Your task to perform on an android device: open device folders in google photos Image 0: 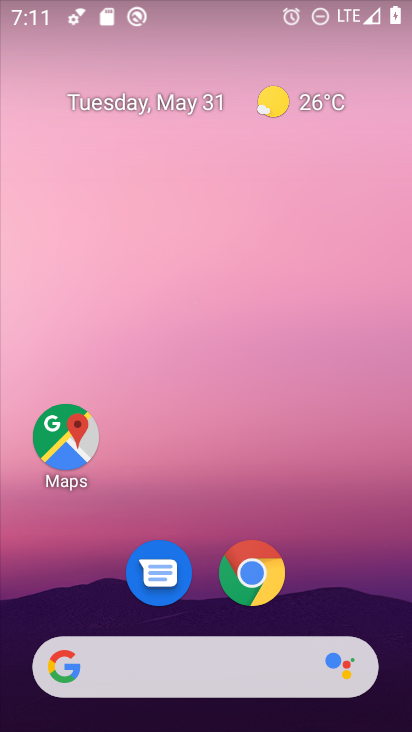
Step 0: drag from (276, 95) to (247, 29)
Your task to perform on an android device: open device folders in google photos Image 1: 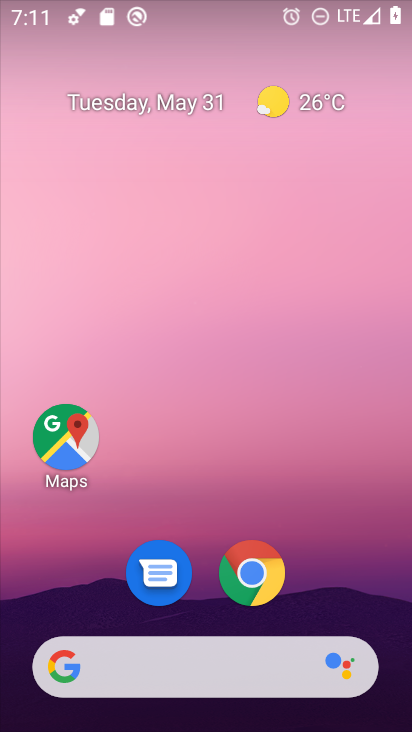
Step 1: drag from (401, 657) to (267, 3)
Your task to perform on an android device: open device folders in google photos Image 2: 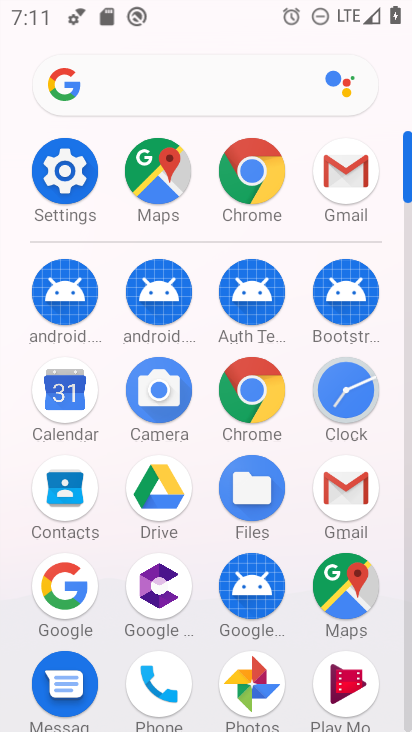
Step 2: click (255, 669)
Your task to perform on an android device: open device folders in google photos Image 3: 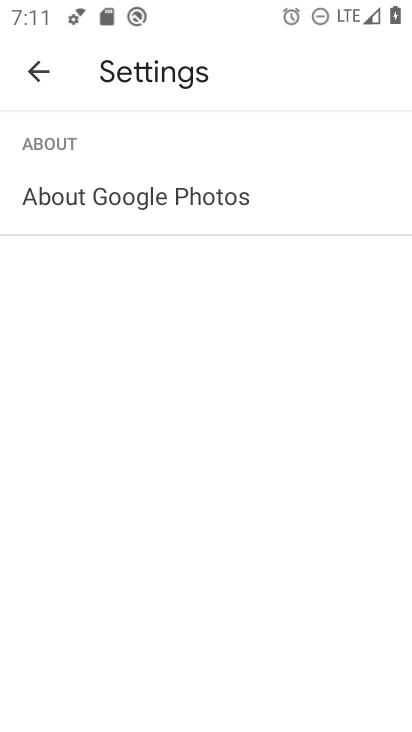
Step 3: press back button
Your task to perform on an android device: open device folders in google photos Image 4: 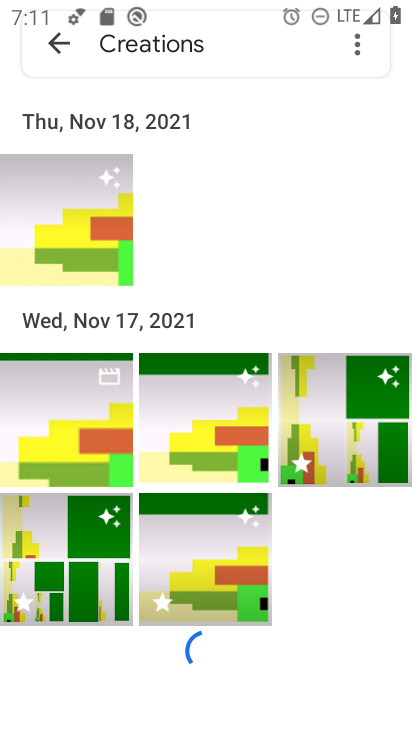
Step 4: press back button
Your task to perform on an android device: open device folders in google photos Image 5: 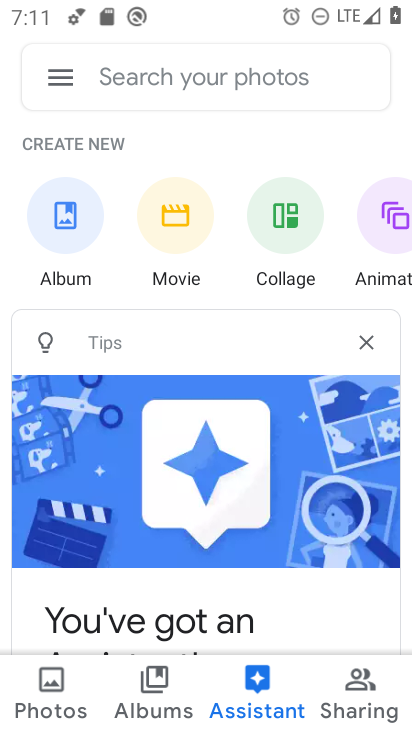
Step 5: click (54, 74)
Your task to perform on an android device: open device folders in google photos Image 6: 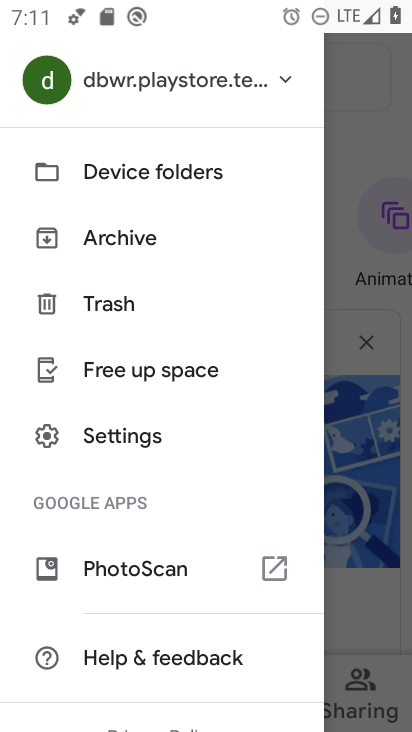
Step 6: click (203, 176)
Your task to perform on an android device: open device folders in google photos Image 7: 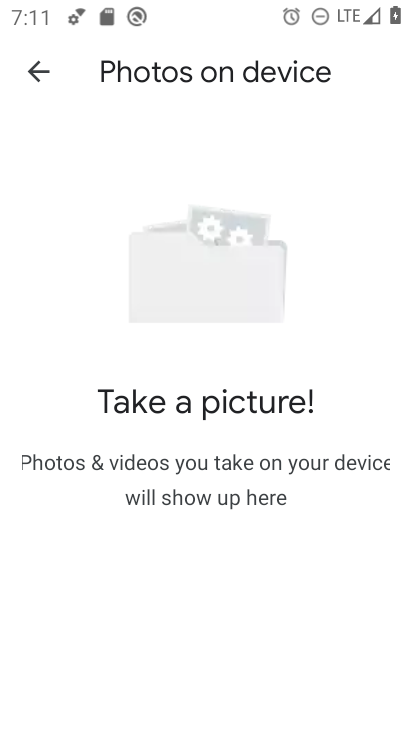
Step 7: task complete